Your task to perform on an android device: set an alarm Image 0: 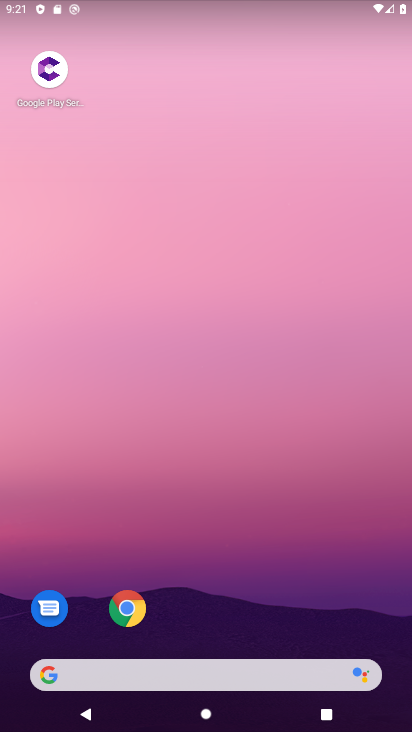
Step 0: drag from (221, 717) to (219, 245)
Your task to perform on an android device: set an alarm Image 1: 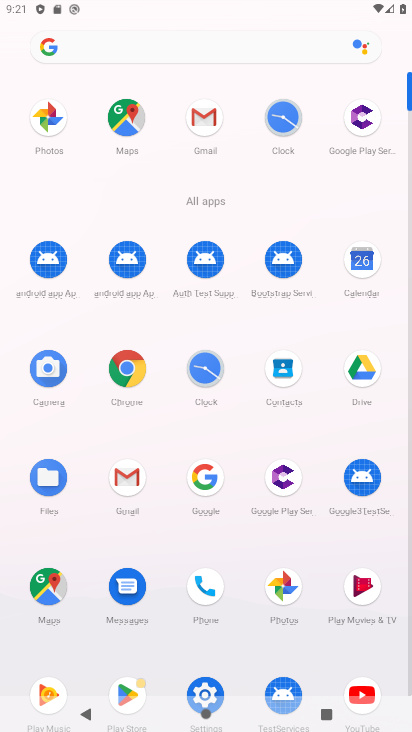
Step 1: click (209, 376)
Your task to perform on an android device: set an alarm Image 2: 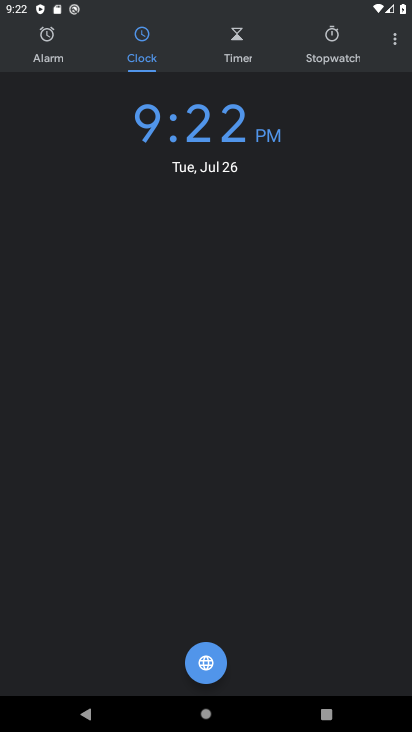
Step 2: click (37, 40)
Your task to perform on an android device: set an alarm Image 3: 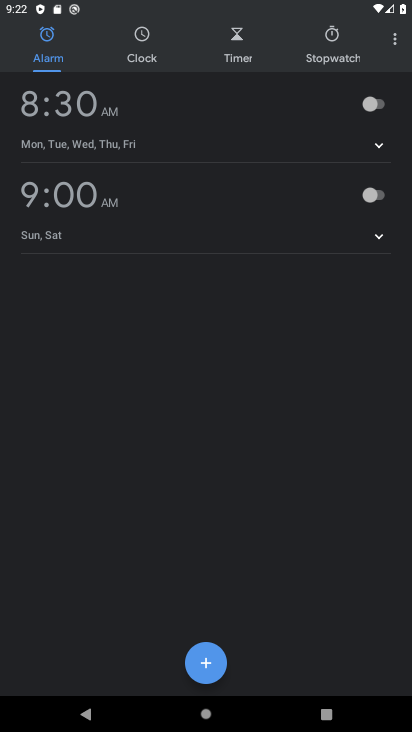
Step 3: click (206, 663)
Your task to perform on an android device: set an alarm Image 4: 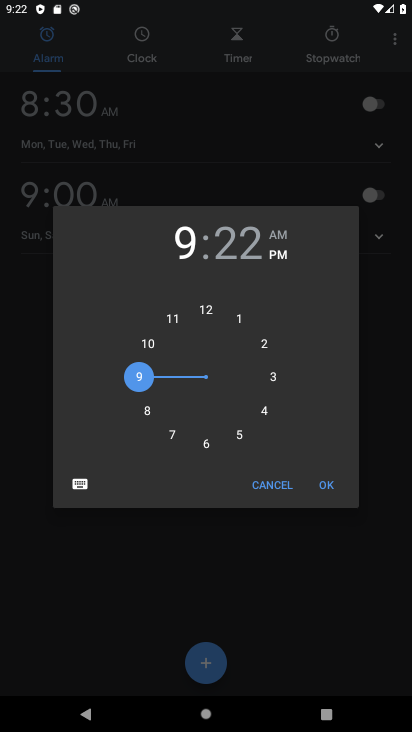
Step 4: click (201, 444)
Your task to perform on an android device: set an alarm Image 5: 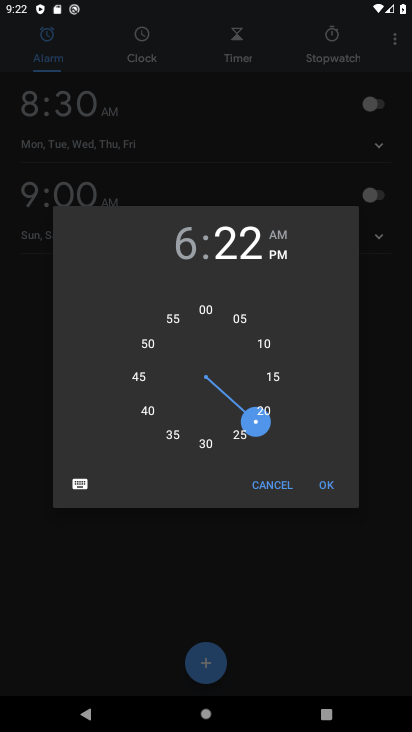
Step 5: click (325, 481)
Your task to perform on an android device: set an alarm Image 6: 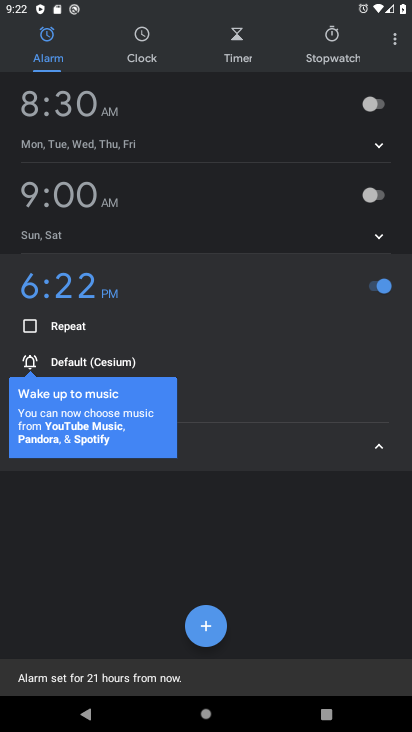
Step 6: task complete